Your task to perform on an android device: Search for vegetarian restaurants on Maps Image 0: 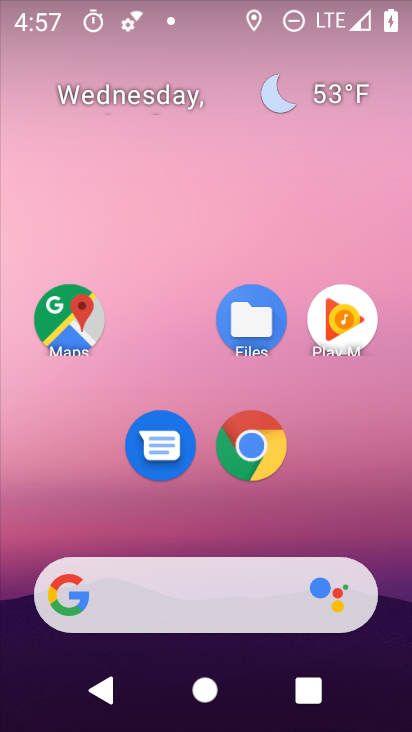
Step 0: drag from (336, 530) to (270, 62)
Your task to perform on an android device: Search for vegetarian restaurants on Maps Image 1: 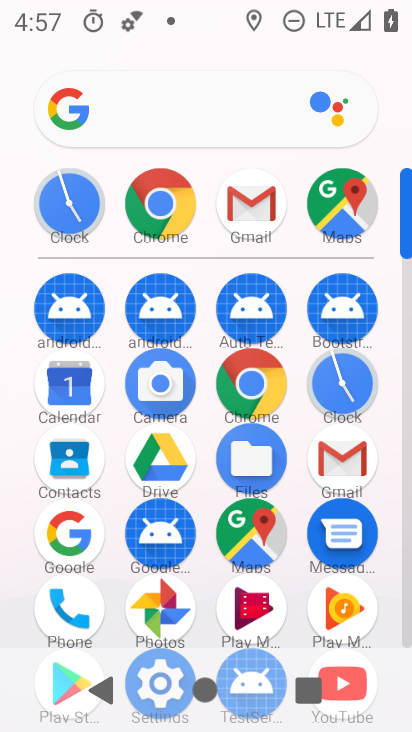
Step 1: click (353, 176)
Your task to perform on an android device: Search for vegetarian restaurants on Maps Image 2: 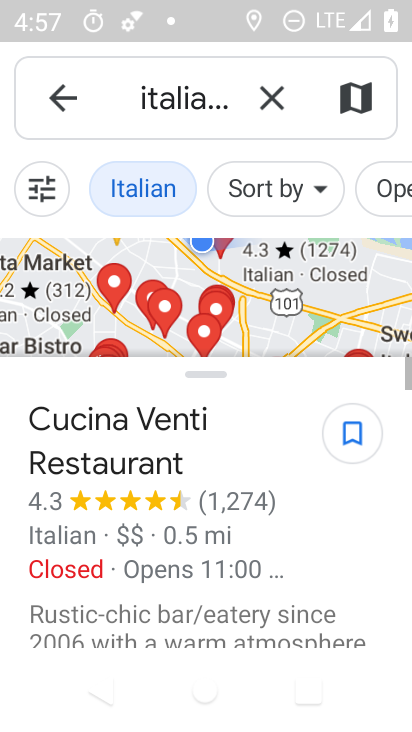
Step 2: click (279, 102)
Your task to perform on an android device: Search for vegetarian restaurants on Maps Image 3: 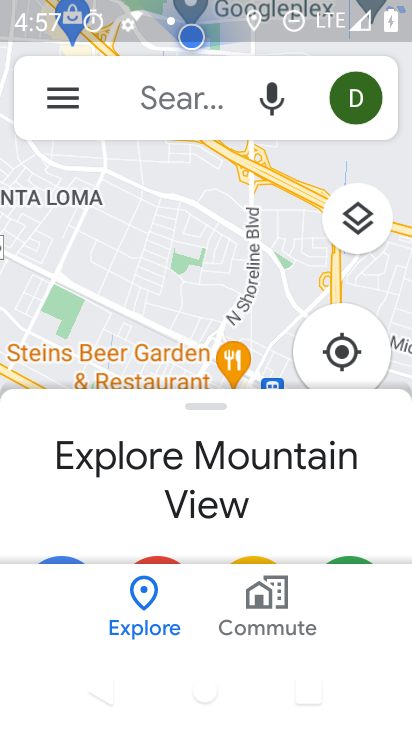
Step 3: click (201, 89)
Your task to perform on an android device: Search for vegetarian restaurants on Maps Image 4: 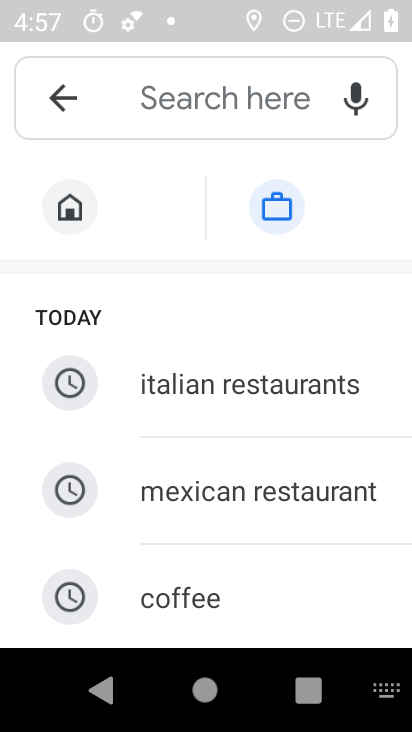
Step 4: drag from (266, 595) to (276, 102)
Your task to perform on an android device: Search for vegetarian restaurants on Maps Image 5: 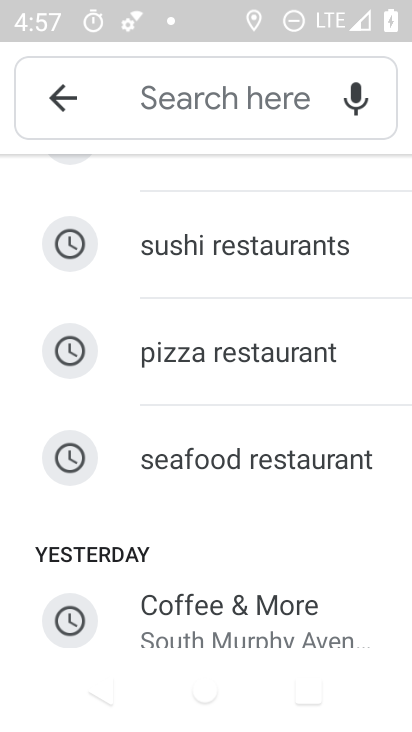
Step 5: drag from (272, 487) to (300, 174)
Your task to perform on an android device: Search for vegetarian restaurants on Maps Image 6: 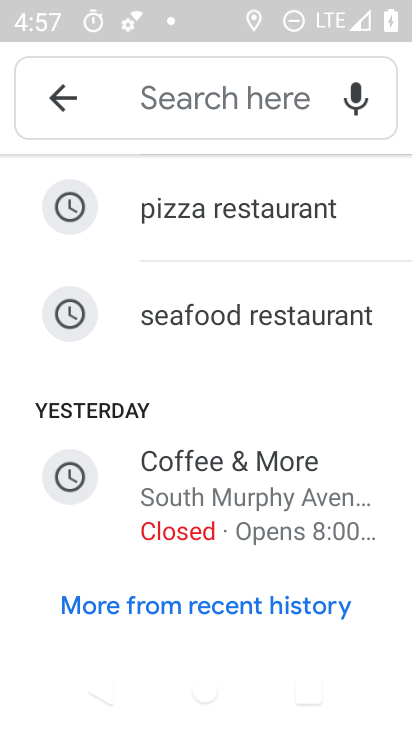
Step 6: click (165, 94)
Your task to perform on an android device: Search for vegetarian restaurants on Maps Image 7: 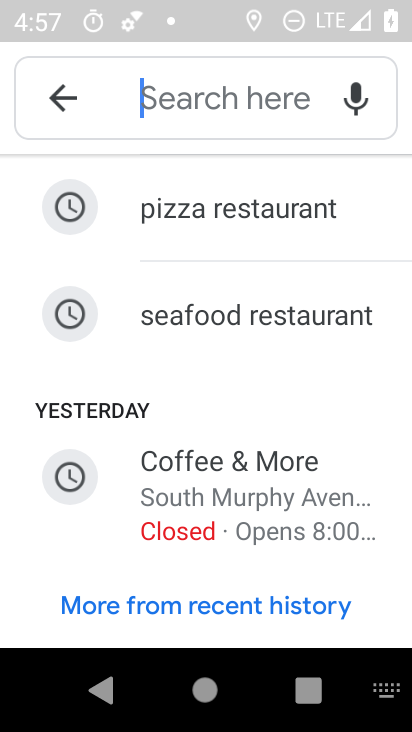
Step 7: type "vegetarian restaurant"
Your task to perform on an android device: Search for vegetarian restaurants on Maps Image 8: 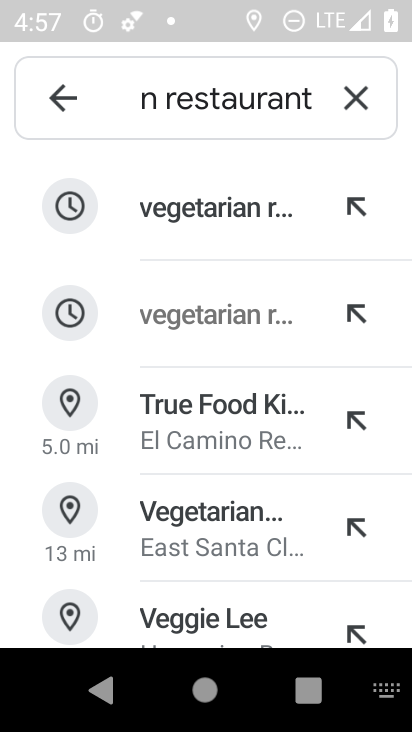
Step 8: click (187, 187)
Your task to perform on an android device: Search for vegetarian restaurants on Maps Image 9: 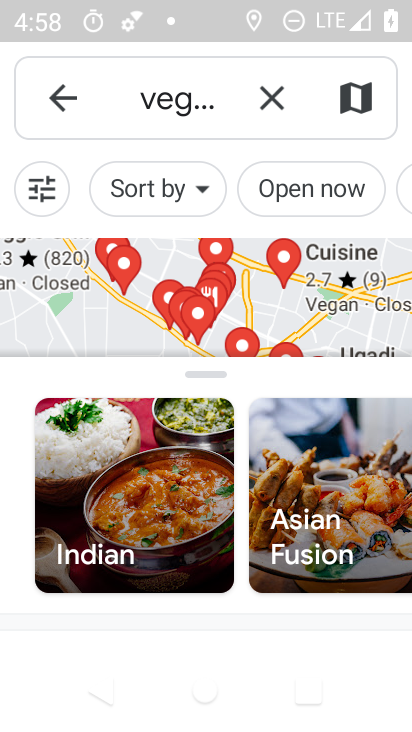
Step 9: task complete